Your task to perform on an android device: Show me productivity apps on the Play Store Image 0: 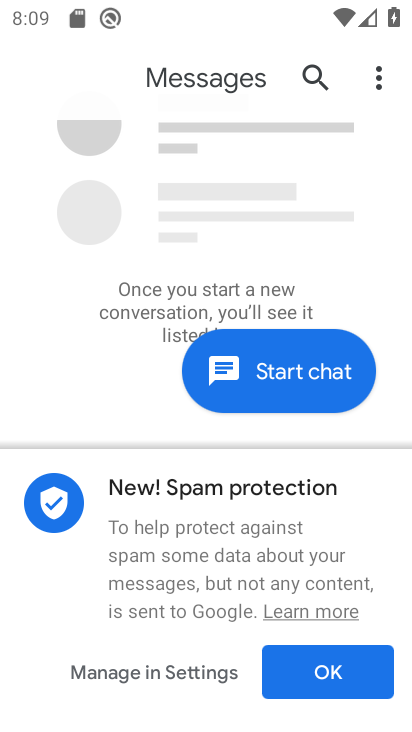
Step 0: press home button
Your task to perform on an android device: Show me productivity apps on the Play Store Image 1: 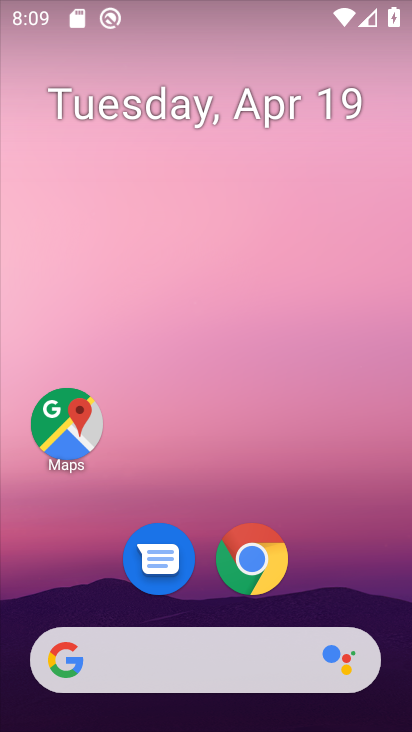
Step 1: drag from (171, 512) to (154, 162)
Your task to perform on an android device: Show me productivity apps on the Play Store Image 2: 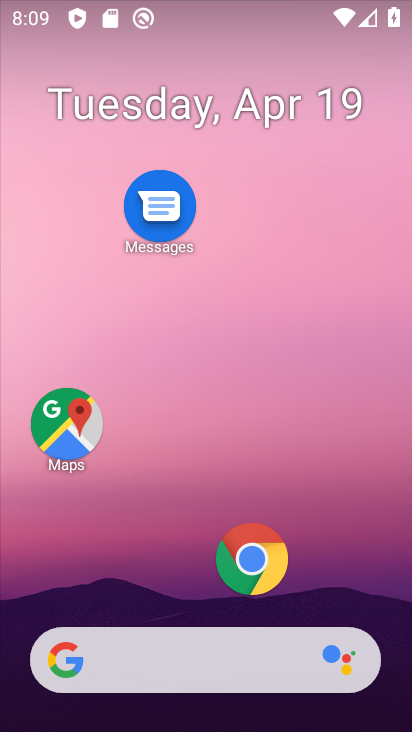
Step 2: drag from (231, 672) to (155, 9)
Your task to perform on an android device: Show me productivity apps on the Play Store Image 3: 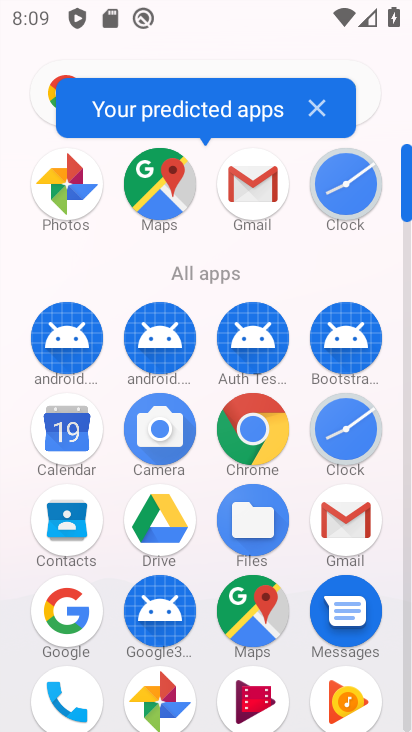
Step 3: drag from (204, 551) to (156, 165)
Your task to perform on an android device: Show me productivity apps on the Play Store Image 4: 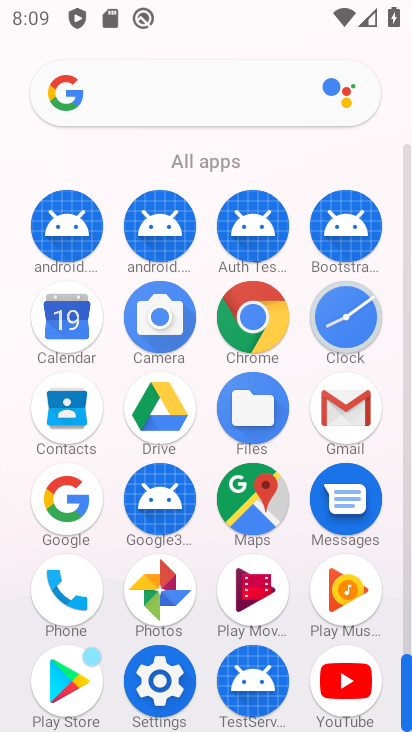
Step 4: click (82, 680)
Your task to perform on an android device: Show me productivity apps on the Play Store Image 5: 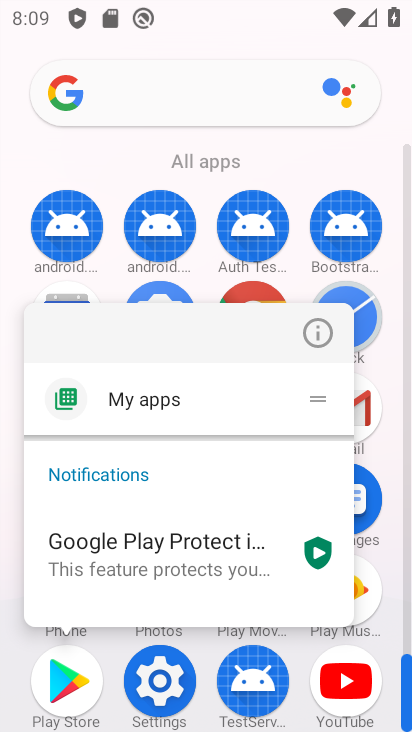
Step 5: click (78, 680)
Your task to perform on an android device: Show me productivity apps on the Play Store Image 6: 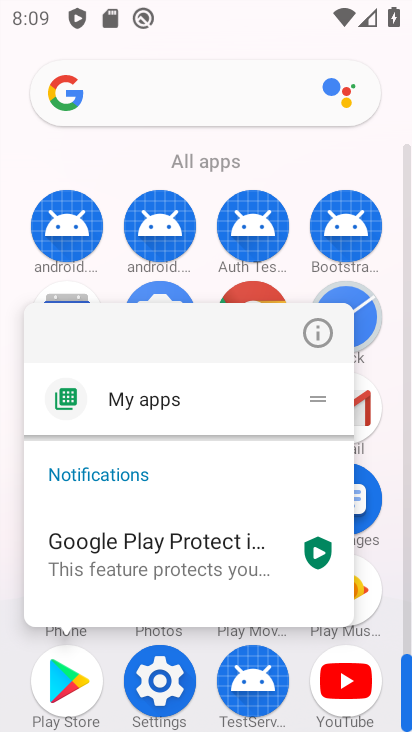
Step 6: click (93, 677)
Your task to perform on an android device: Show me productivity apps on the Play Store Image 7: 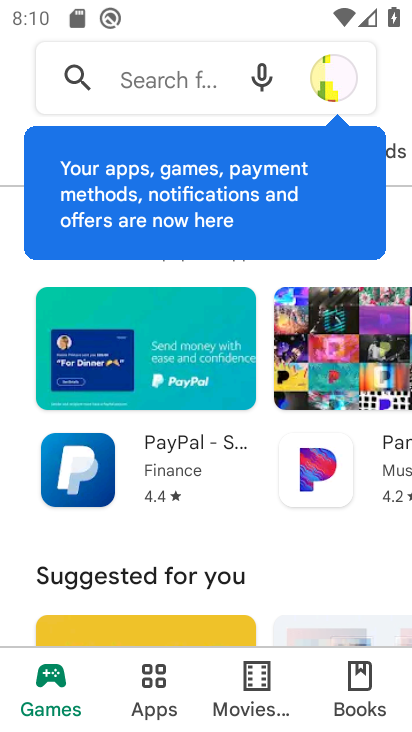
Step 7: click (152, 83)
Your task to perform on an android device: Show me productivity apps on the Play Store Image 8: 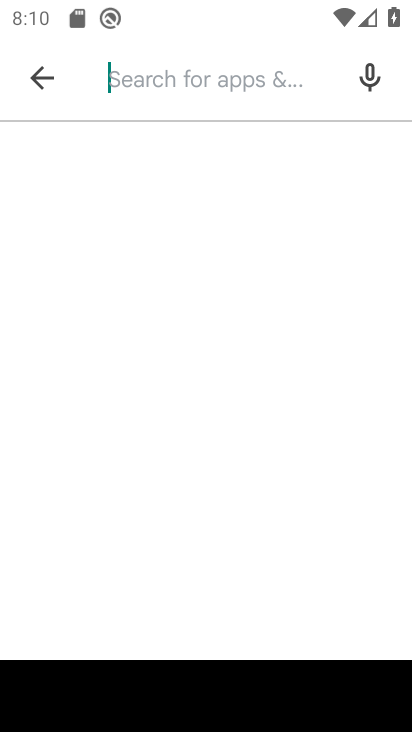
Step 8: type "productivity apps"
Your task to perform on an android device: Show me productivity apps on the Play Store Image 9: 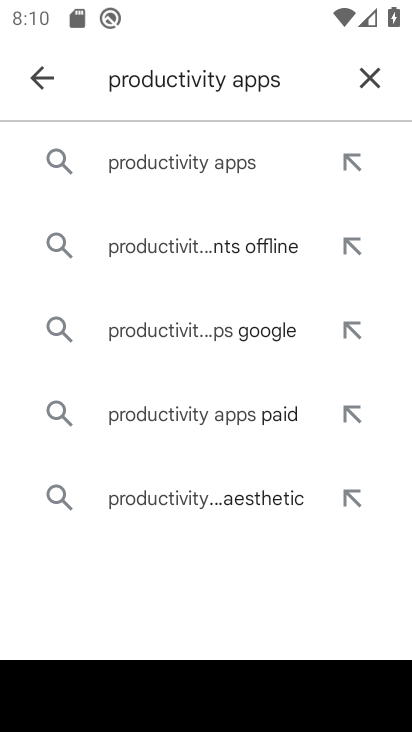
Step 9: click (181, 160)
Your task to perform on an android device: Show me productivity apps on the Play Store Image 10: 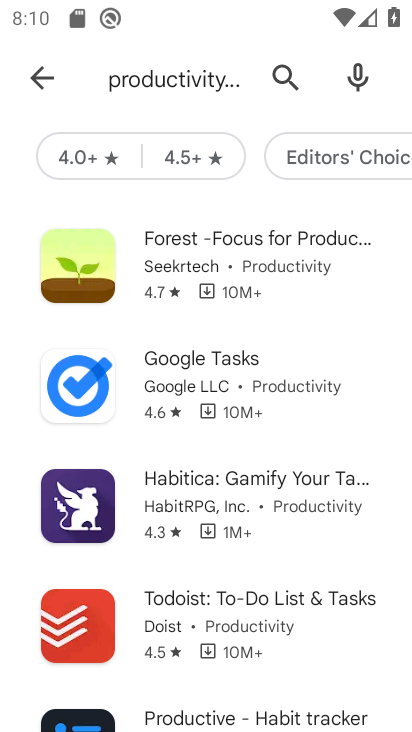
Step 10: task complete